Your task to perform on an android device: turn on translation in the chrome app Image 0: 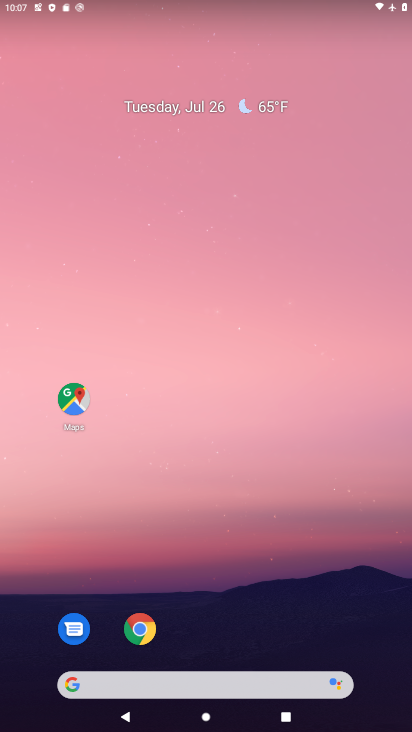
Step 0: drag from (254, 606) to (274, 18)
Your task to perform on an android device: turn on translation in the chrome app Image 1: 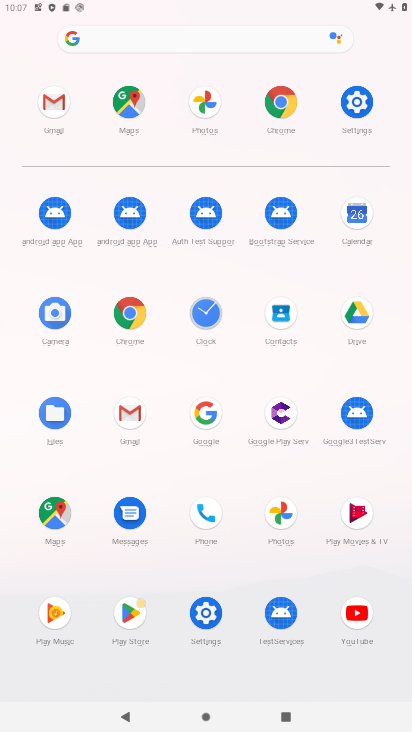
Step 1: click (285, 104)
Your task to perform on an android device: turn on translation in the chrome app Image 2: 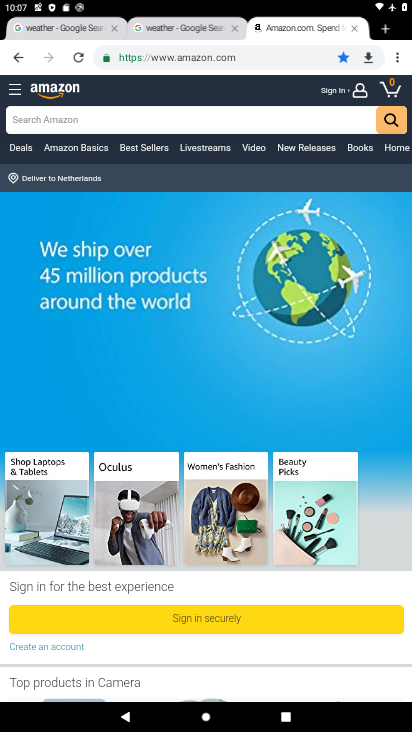
Step 2: drag from (402, 59) to (292, 390)
Your task to perform on an android device: turn on translation in the chrome app Image 3: 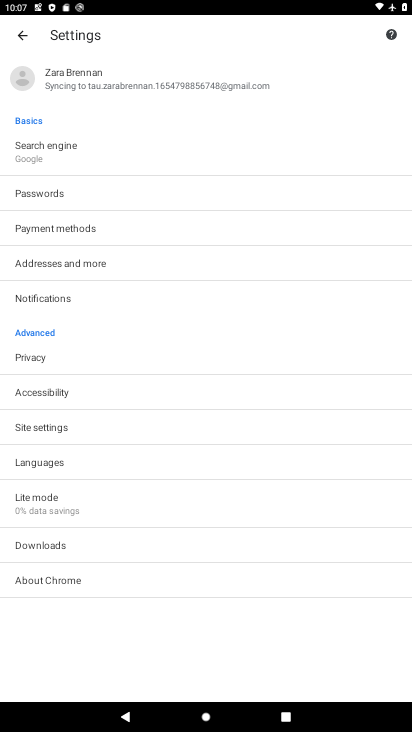
Step 3: click (64, 466)
Your task to perform on an android device: turn on translation in the chrome app Image 4: 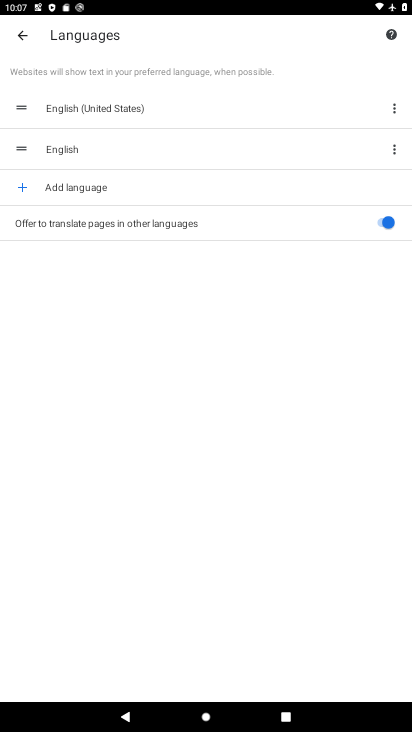
Step 4: task complete